Your task to perform on an android device: turn on translation in the chrome app Image 0: 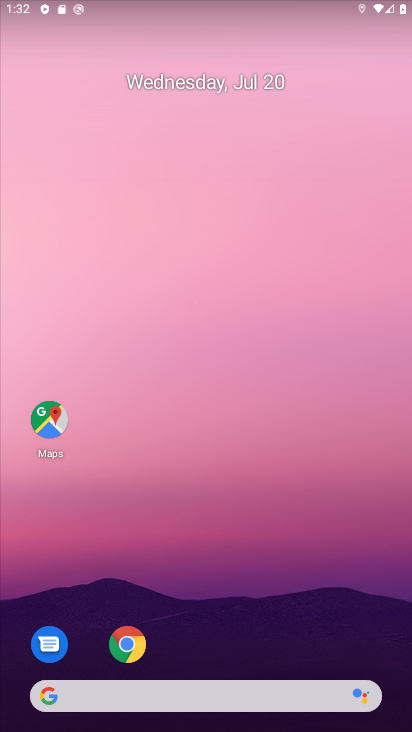
Step 0: click (136, 641)
Your task to perform on an android device: turn on translation in the chrome app Image 1: 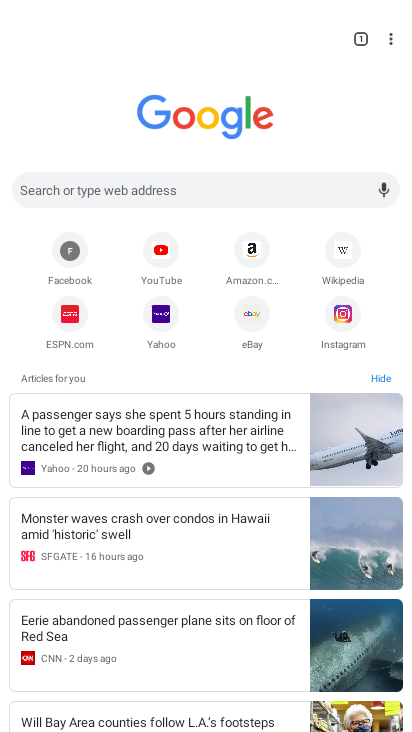
Step 1: click (395, 40)
Your task to perform on an android device: turn on translation in the chrome app Image 2: 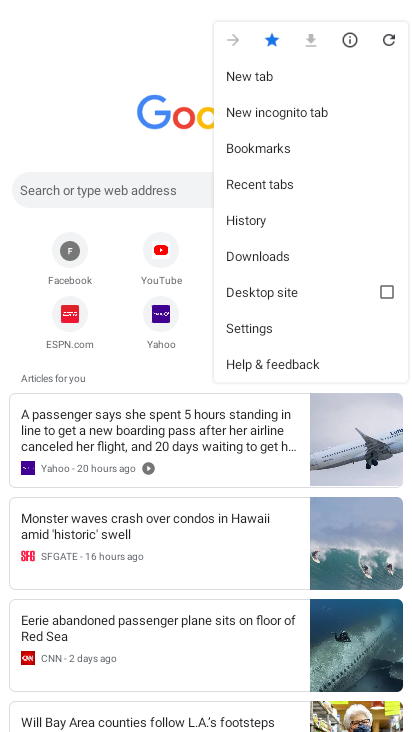
Step 2: click (244, 320)
Your task to perform on an android device: turn on translation in the chrome app Image 3: 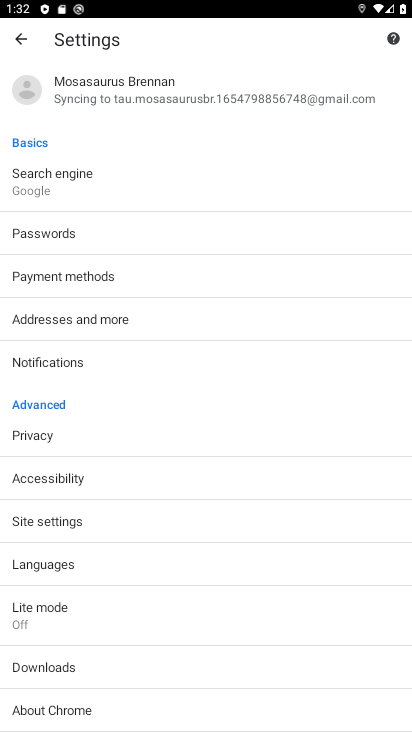
Step 3: click (78, 568)
Your task to perform on an android device: turn on translation in the chrome app Image 4: 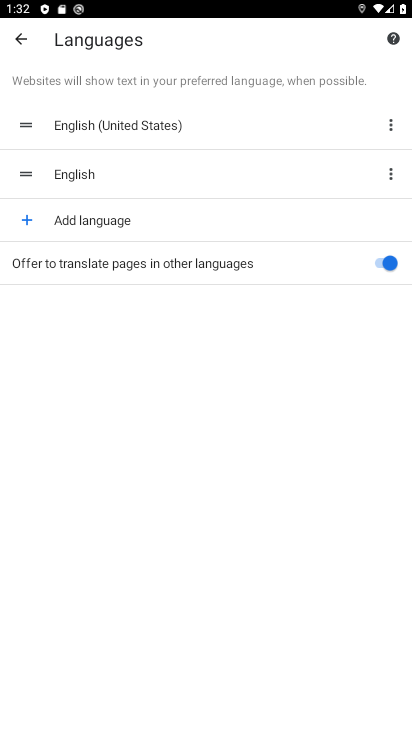
Step 4: task complete